Your task to perform on an android device: Play some music on YouTube Image 0: 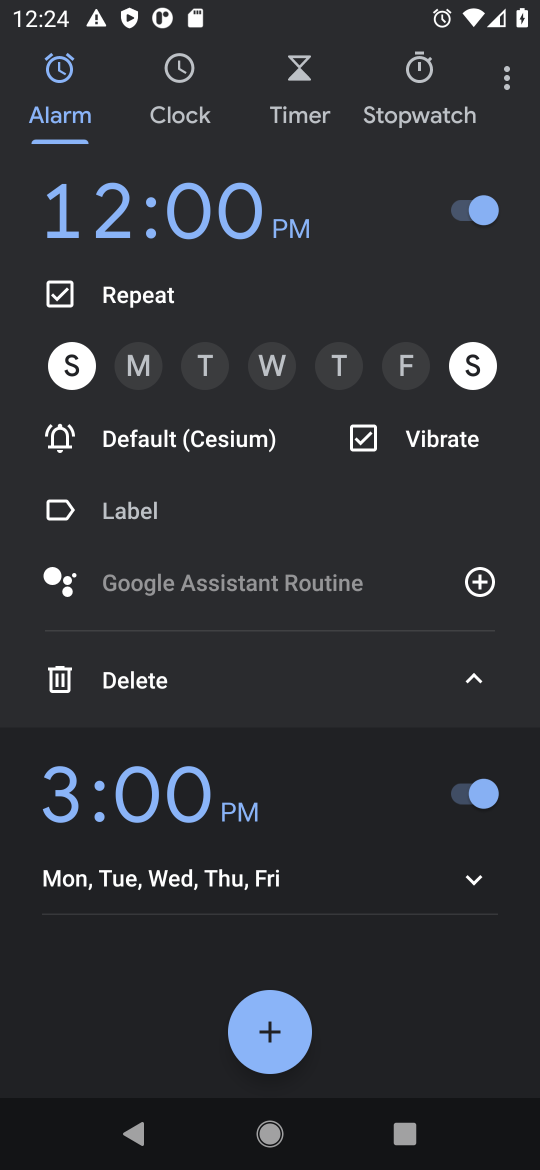
Step 0: press home button
Your task to perform on an android device: Play some music on YouTube Image 1: 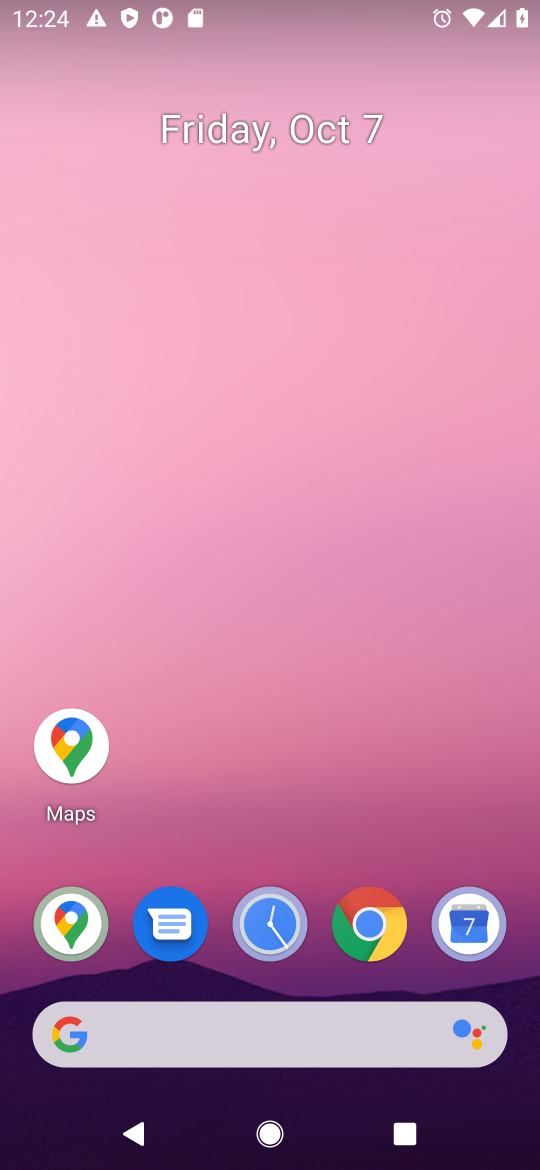
Step 1: click (530, 786)
Your task to perform on an android device: Play some music on YouTube Image 2: 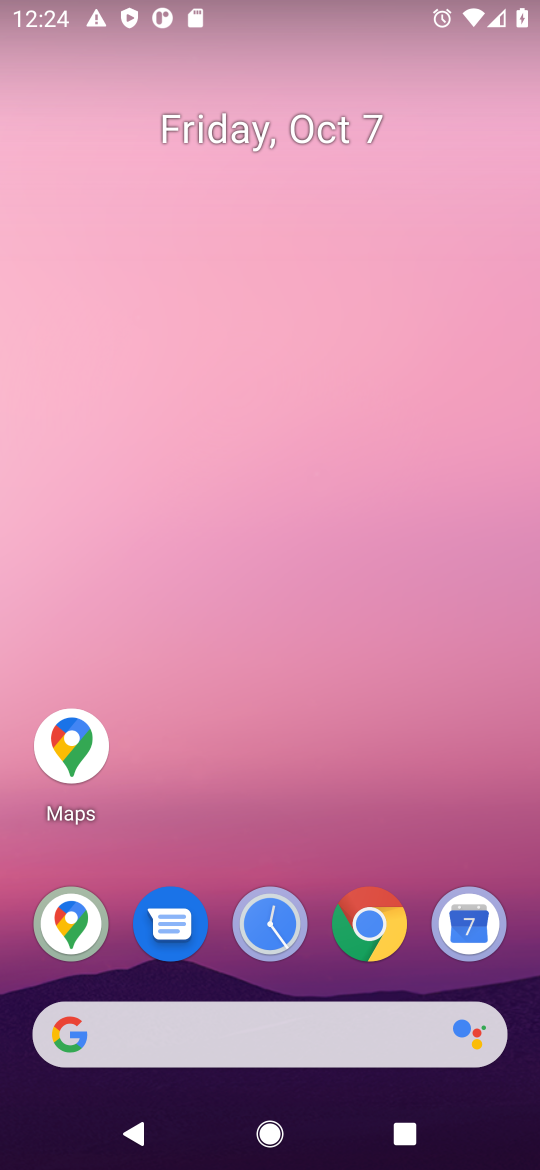
Step 2: drag from (331, 1033) to (499, 322)
Your task to perform on an android device: Play some music on YouTube Image 3: 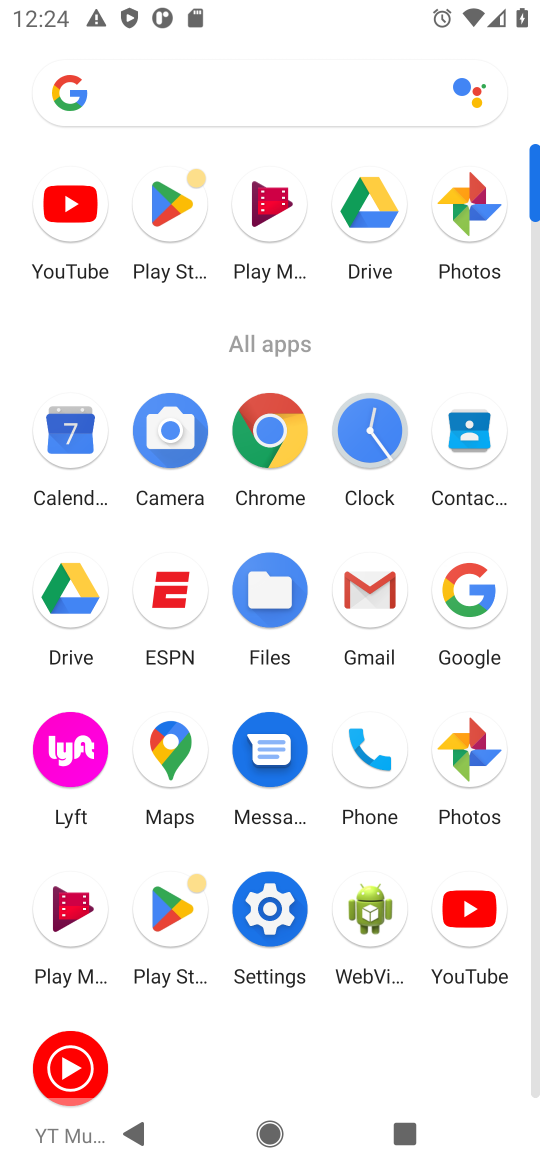
Step 3: click (60, 204)
Your task to perform on an android device: Play some music on YouTube Image 4: 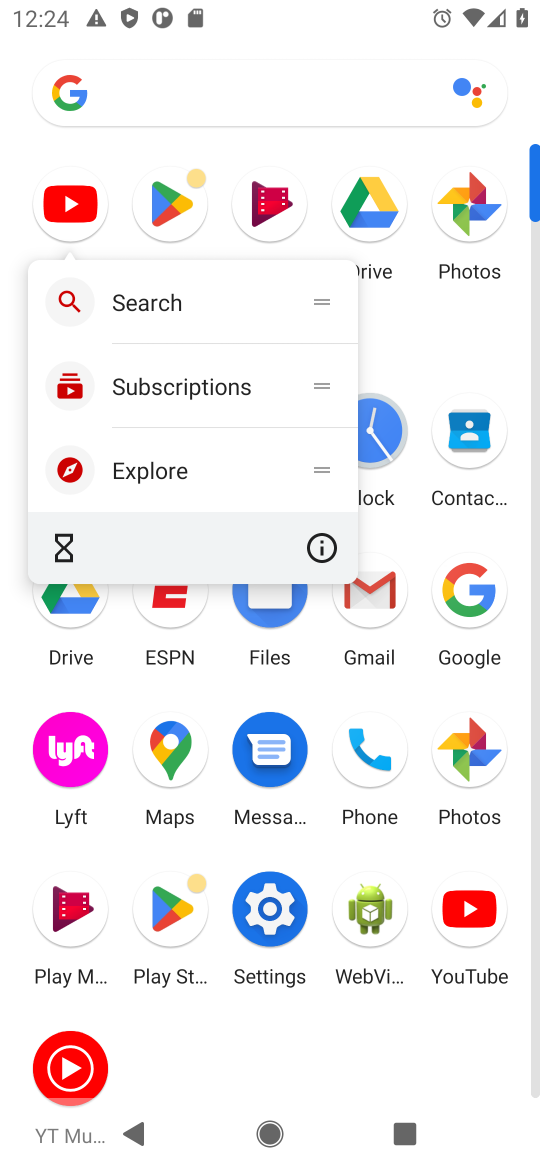
Step 4: click (62, 194)
Your task to perform on an android device: Play some music on YouTube Image 5: 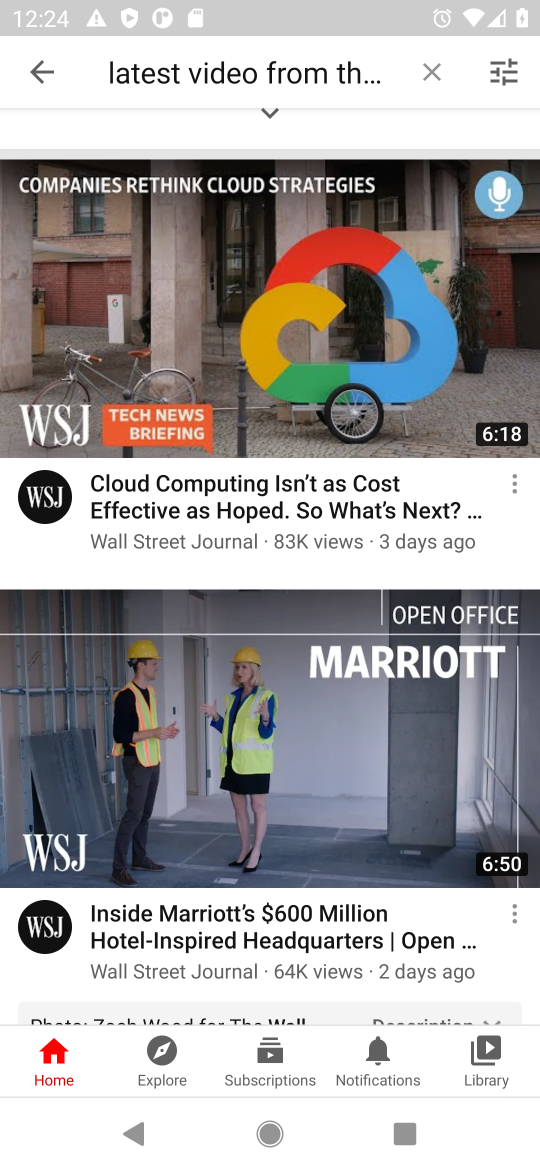
Step 5: click (428, 67)
Your task to perform on an android device: Play some music on YouTube Image 6: 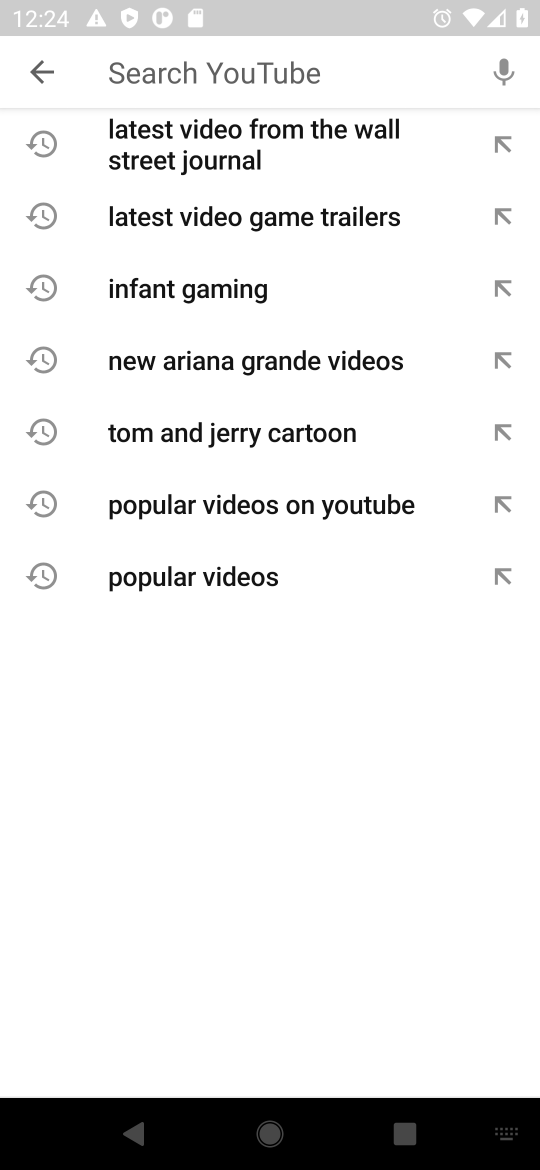
Step 6: click (330, 58)
Your task to perform on an android device: Play some music on YouTube Image 7: 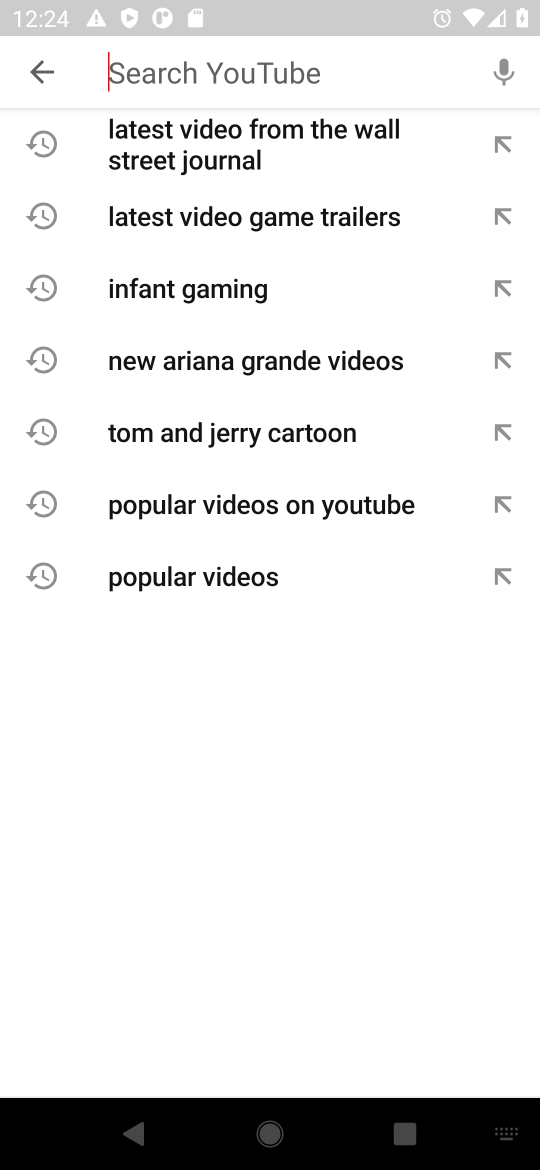
Step 7: type "music"
Your task to perform on an android device: Play some music on YouTube Image 8: 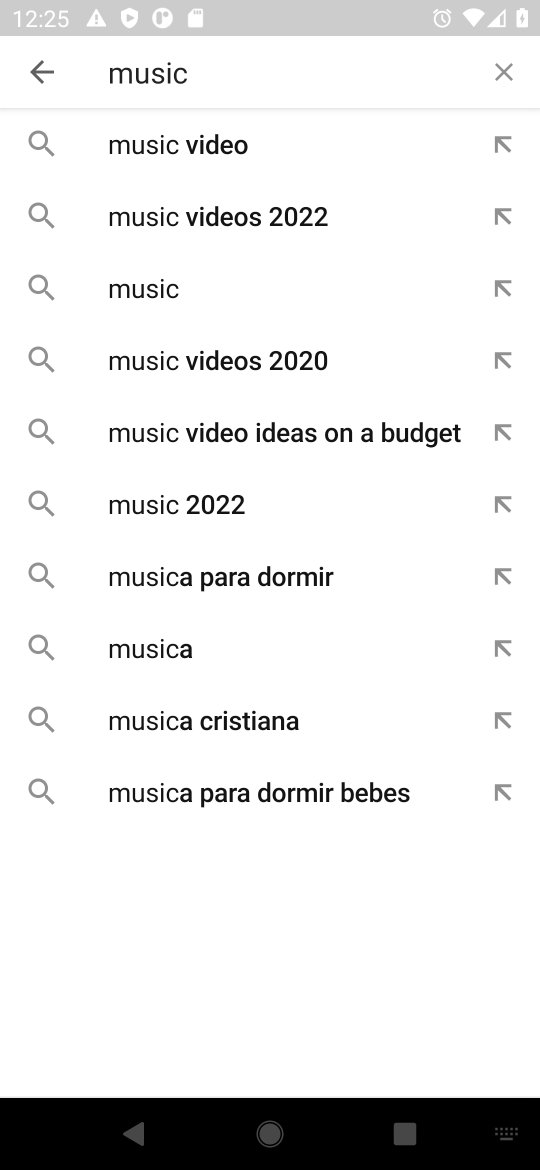
Step 8: click (162, 281)
Your task to perform on an android device: Play some music on YouTube Image 9: 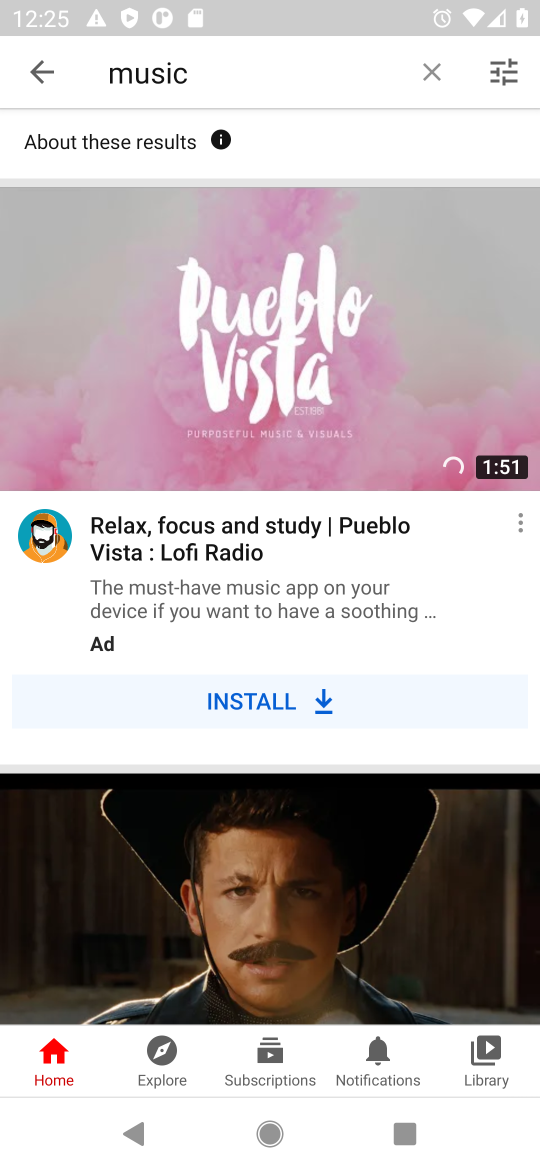
Step 9: click (285, 376)
Your task to perform on an android device: Play some music on YouTube Image 10: 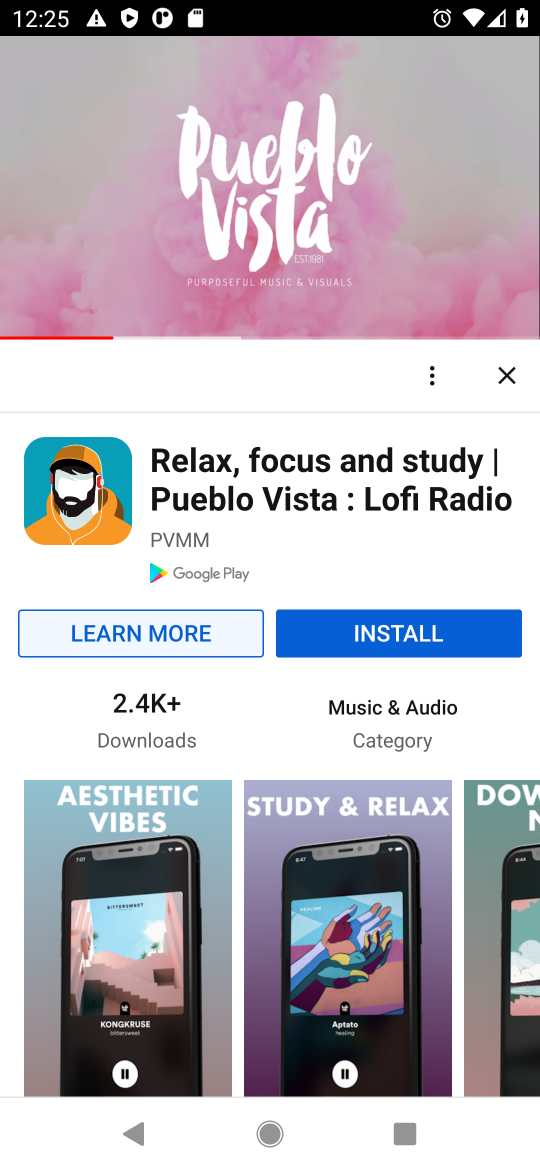
Step 10: click (294, 176)
Your task to perform on an android device: Play some music on YouTube Image 11: 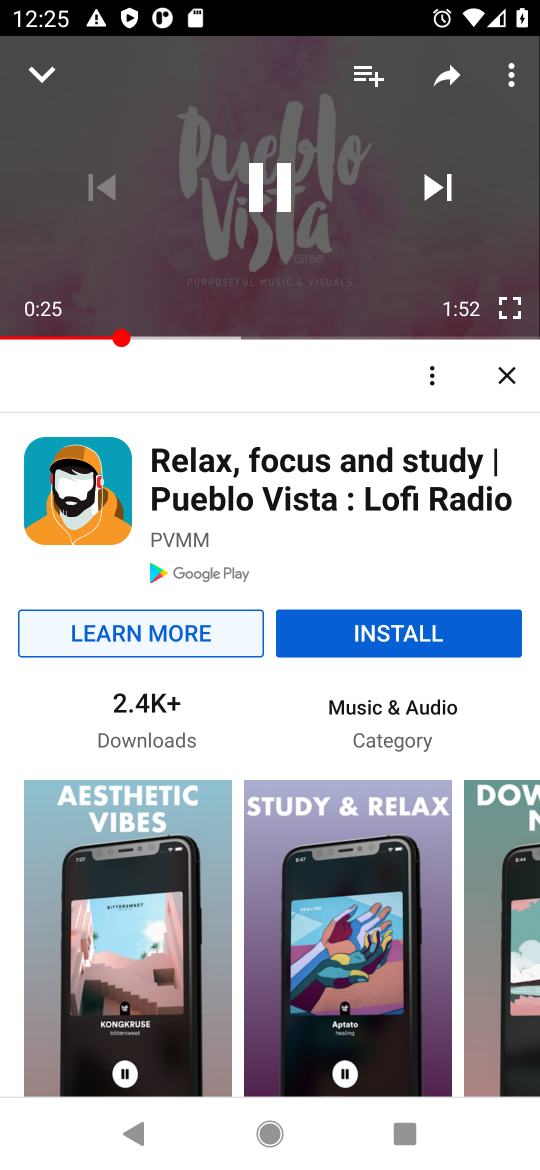
Step 11: click (269, 189)
Your task to perform on an android device: Play some music on YouTube Image 12: 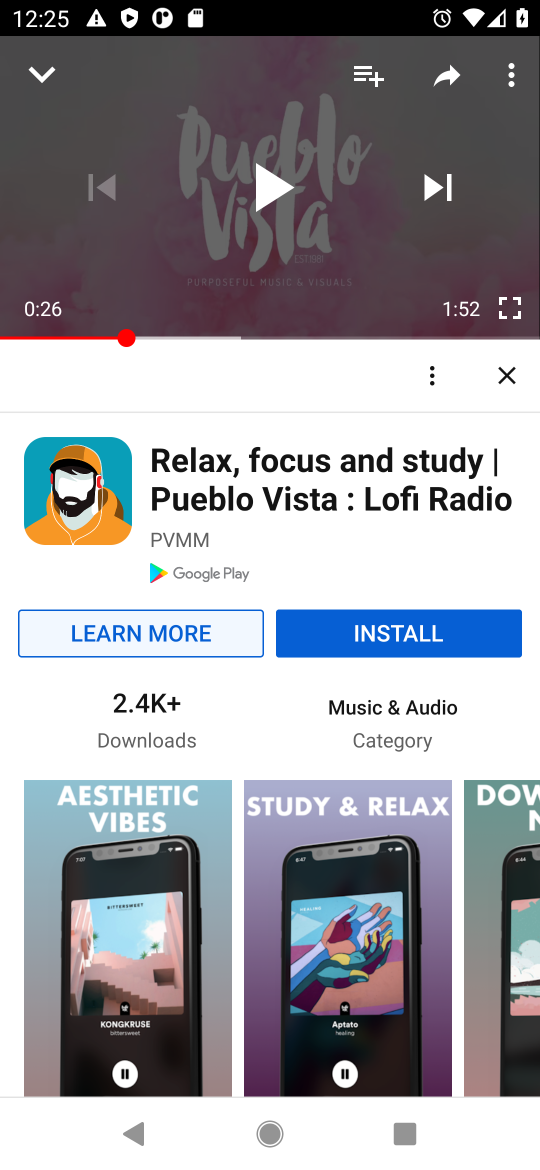
Step 12: task complete